Your task to perform on an android device: toggle location history Image 0: 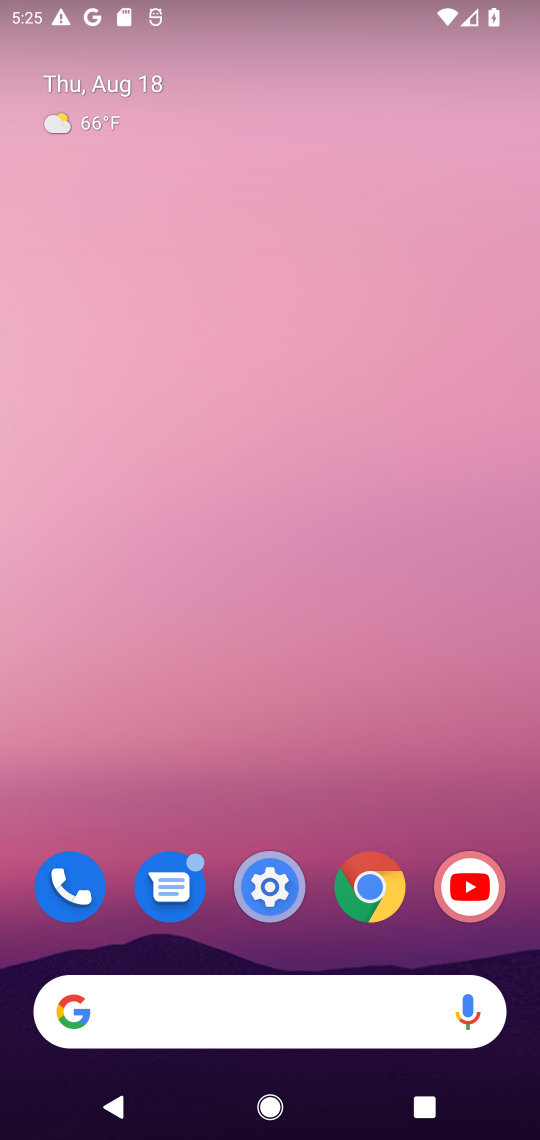
Step 0: drag from (305, 775) to (300, 83)
Your task to perform on an android device: toggle location history Image 1: 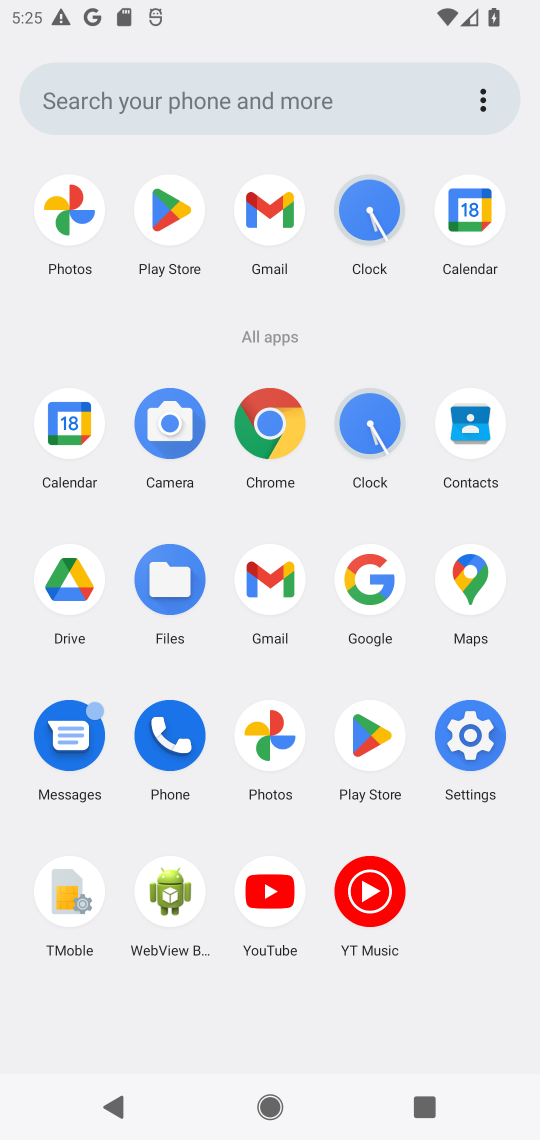
Step 1: task complete